Your task to perform on an android device: Go to eBay Image 0: 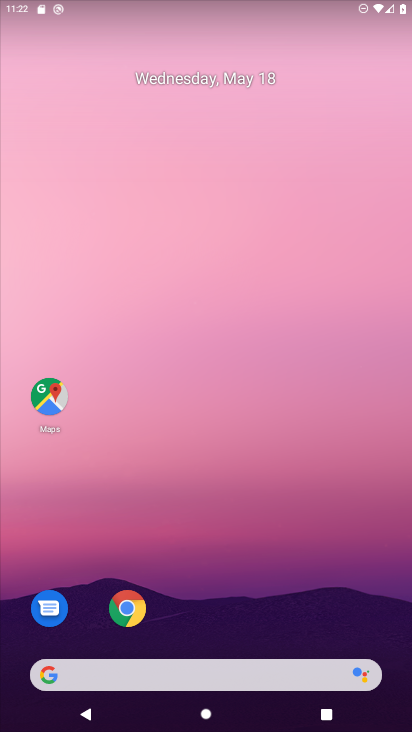
Step 0: drag from (251, 618) to (237, 141)
Your task to perform on an android device: Go to eBay Image 1: 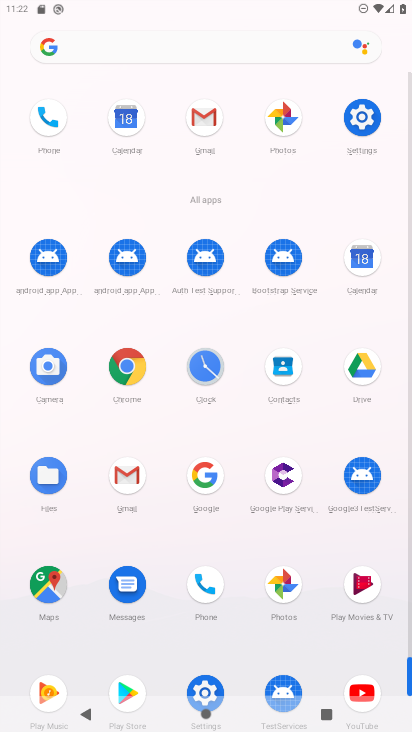
Step 1: click (203, 474)
Your task to perform on an android device: Go to eBay Image 2: 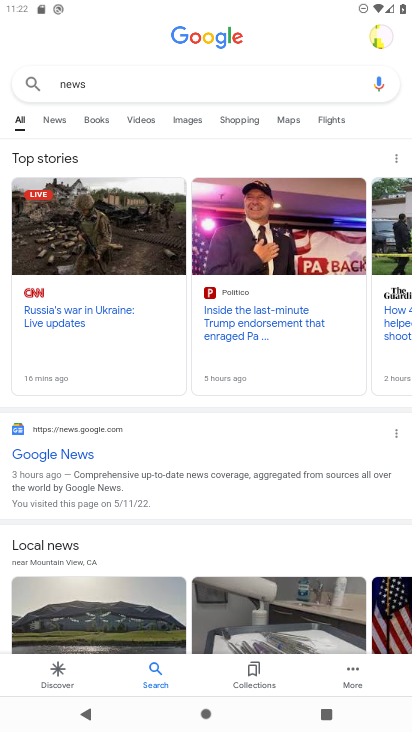
Step 2: click (111, 92)
Your task to perform on an android device: Go to eBay Image 3: 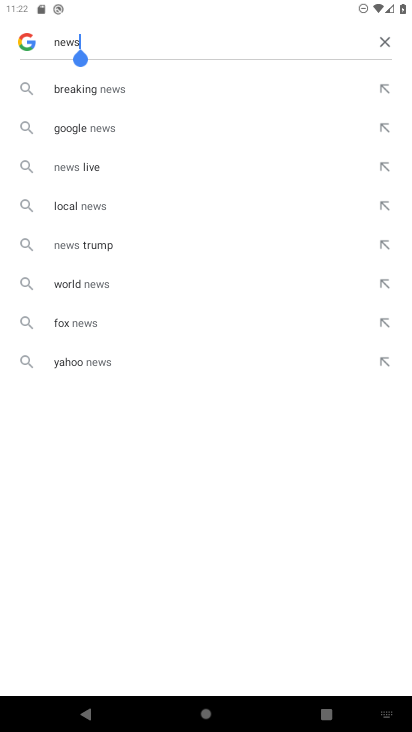
Step 3: click (382, 40)
Your task to perform on an android device: Go to eBay Image 4: 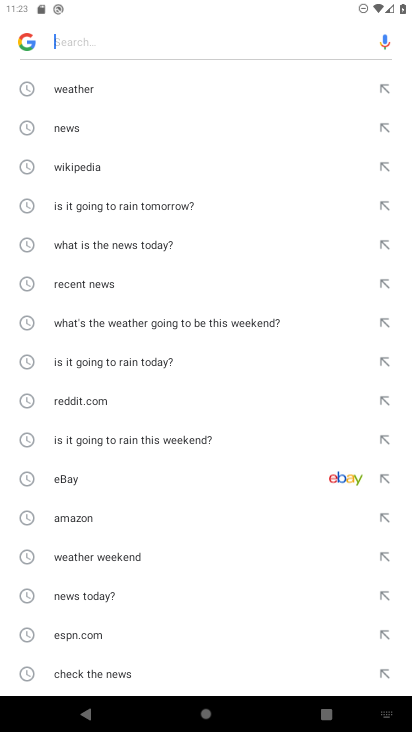
Step 4: type "eBay"
Your task to perform on an android device: Go to eBay Image 5: 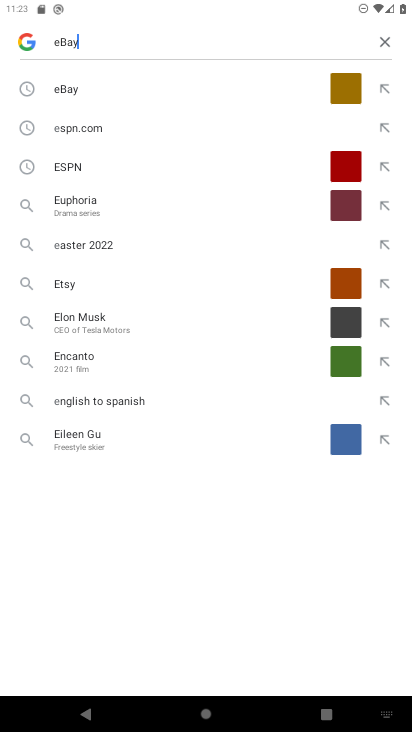
Step 5: type ""
Your task to perform on an android device: Go to eBay Image 6: 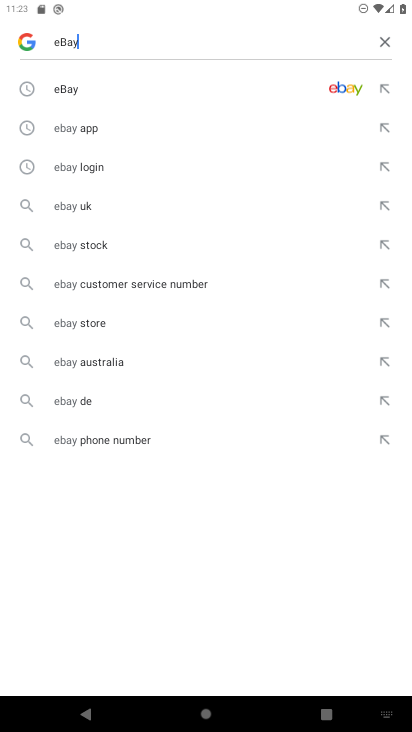
Step 6: click (71, 85)
Your task to perform on an android device: Go to eBay Image 7: 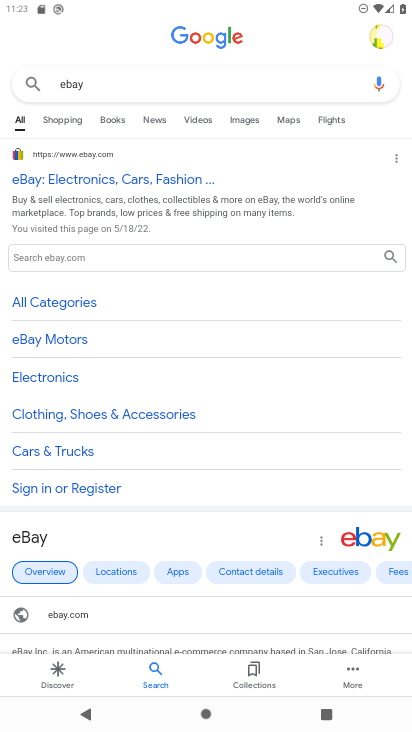
Step 7: click (73, 163)
Your task to perform on an android device: Go to eBay Image 8: 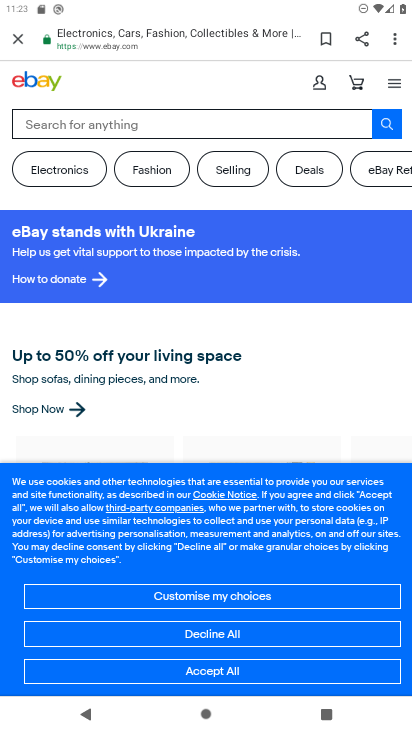
Step 8: task complete